Your task to perform on an android device: empty trash in google photos Image 0: 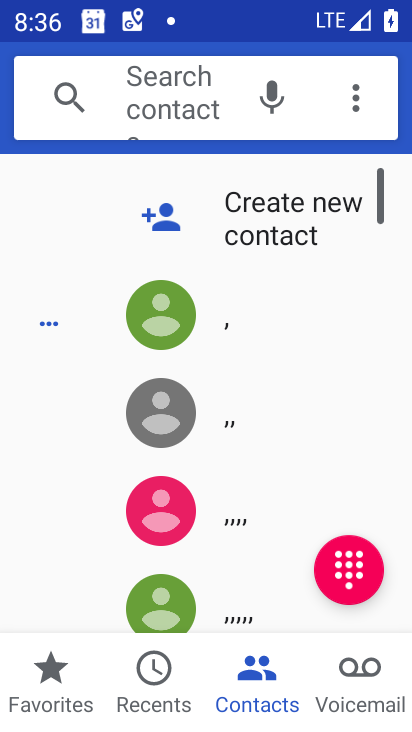
Step 0: press home button
Your task to perform on an android device: empty trash in google photos Image 1: 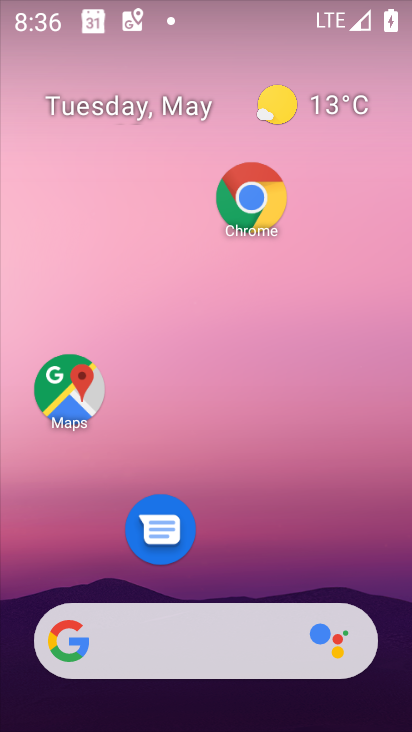
Step 1: drag from (349, 490) to (257, 15)
Your task to perform on an android device: empty trash in google photos Image 2: 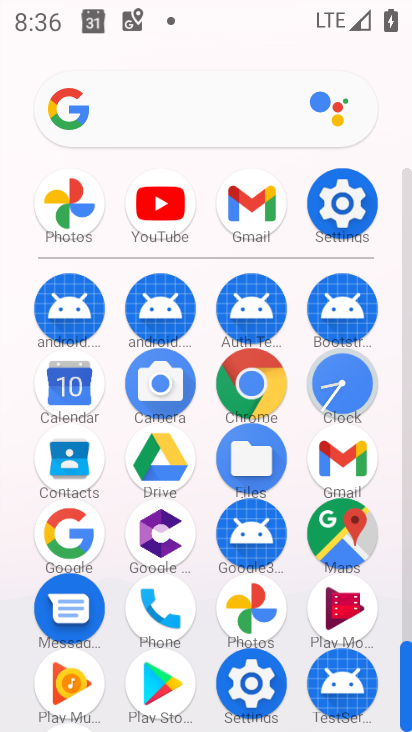
Step 2: click (76, 221)
Your task to perform on an android device: empty trash in google photos Image 3: 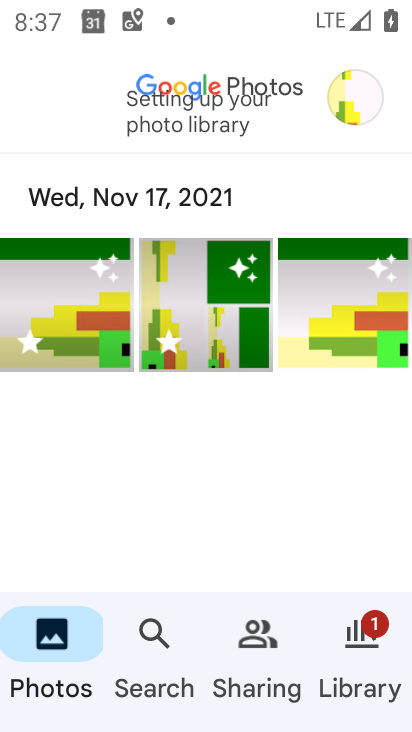
Step 3: click (358, 81)
Your task to perform on an android device: empty trash in google photos Image 4: 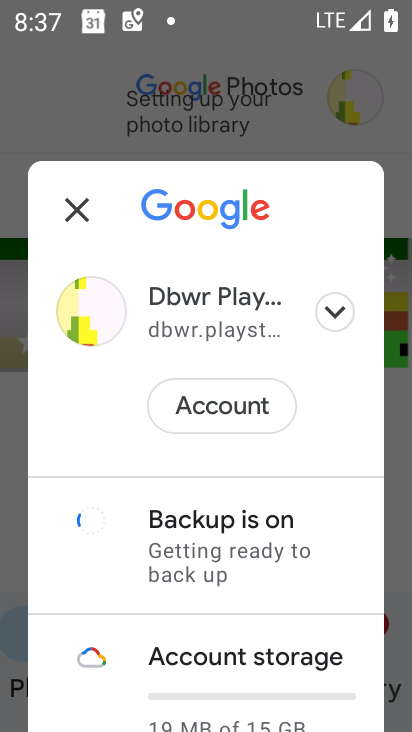
Step 4: task complete